Your task to perform on an android device: change the clock display to show seconds Image 0: 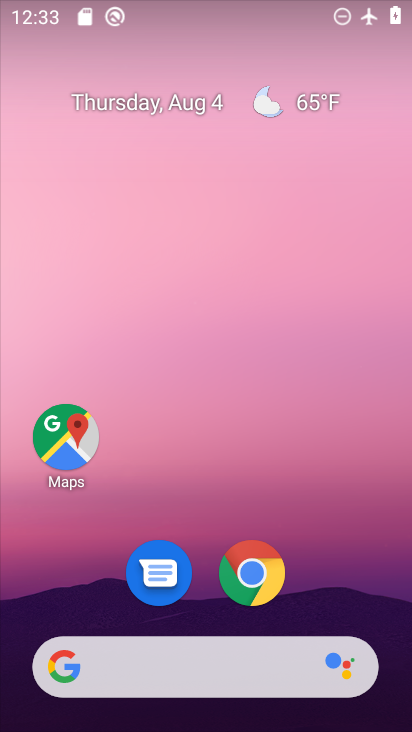
Step 0: drag from (371, 537) to (347, 102)
Your task to perform on an android device: change the clock display to show seconds Image 1: 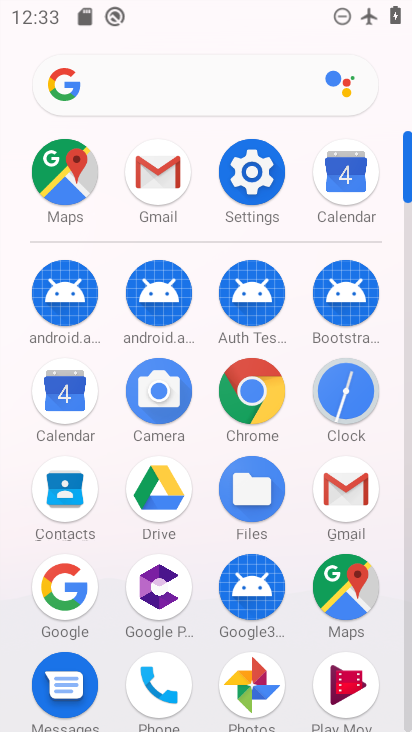
Step 1: click (362, 397)
Your task to perform on an android device: change the clock display to show seconds Image 2: 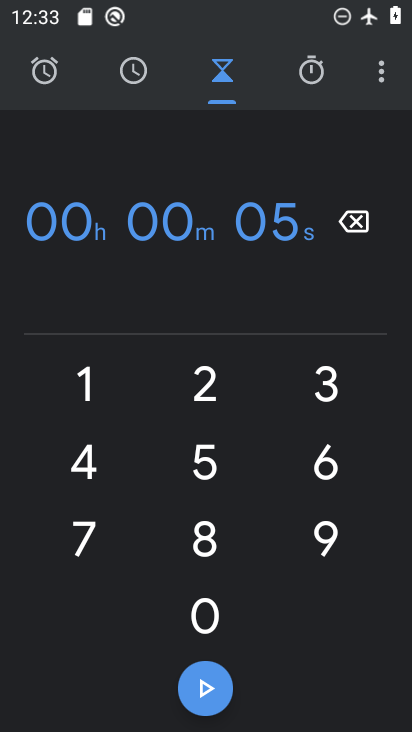
Step 2: click (379, 64)
Your task to perform on an android device: change the clock display to show seconds Image 3: 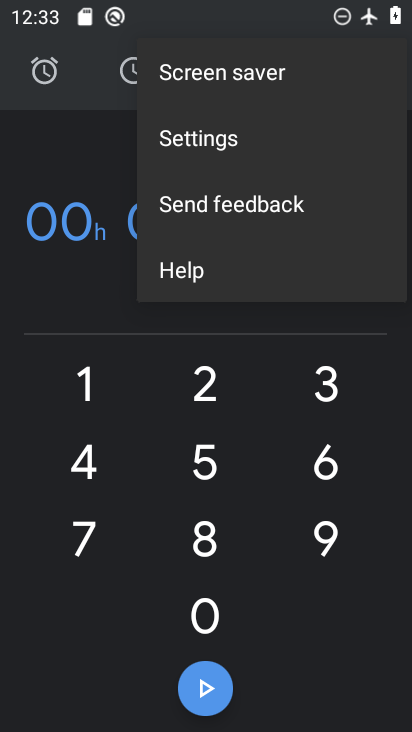
Step 3: click (244, 160)
Your task to perform on an android device: change the clock display to show seconds Image 4: 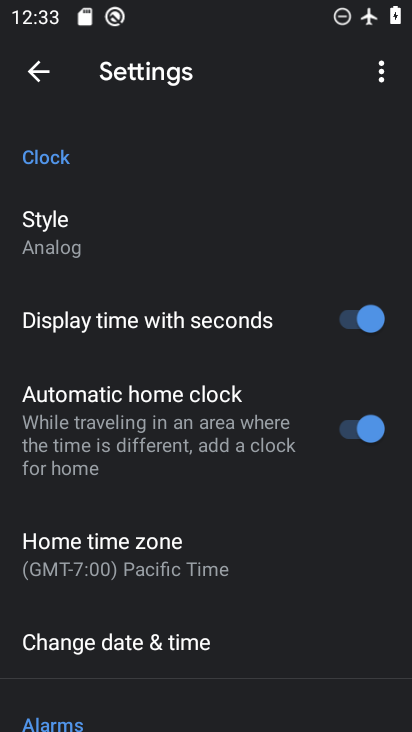
Step 4: task complete